Your task to perform on an android device: Go to Yahoo.com Image 0: 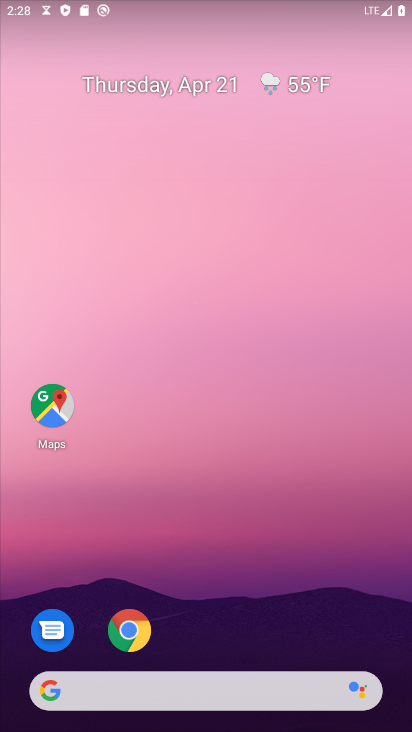
Step 0: click (127, 635)
Your task to perform on an android device: Go to Yahoo.com Image 1: 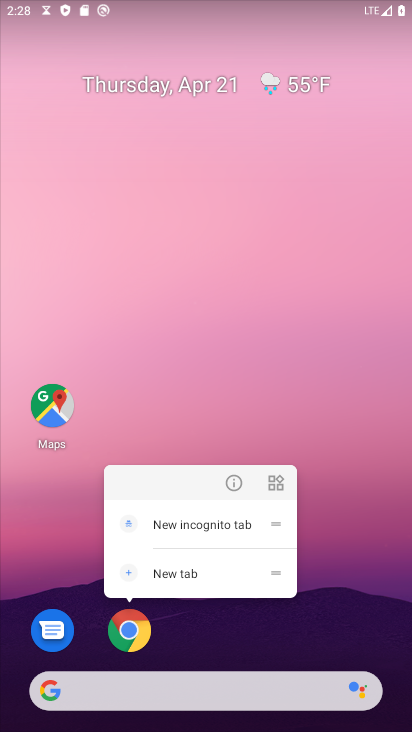
Step 1: click (128, 635)
Your task to perform on an android device: Go to Yahoo.com Image 2: 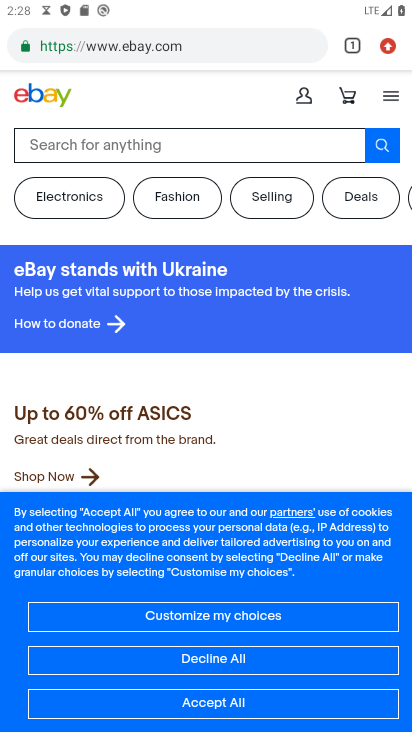
Step 2: click (121, 52)
Your task to perform on an android device: Go to Yahoo.com Image 3: 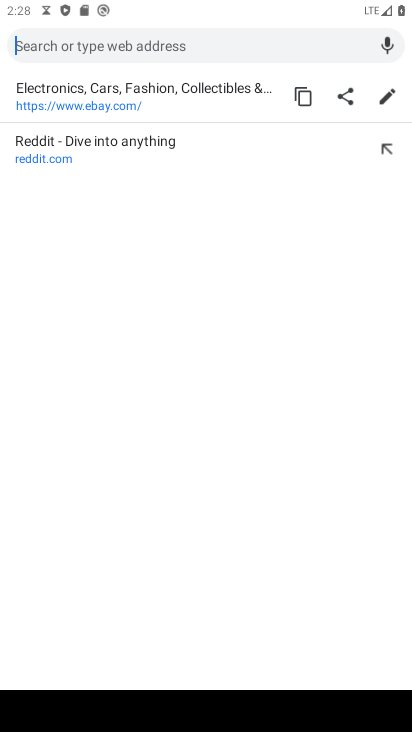
Step 3: type "yahoo.com"
Your task to perform on an android device: Go to Yahoo.com Image 4: 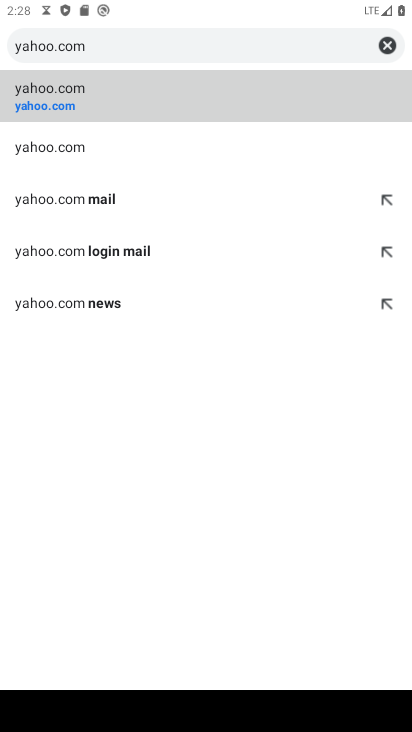
Step 4: click (46, 114)
Your task to perform on an android device: Go to Yahoo.com Image 5: 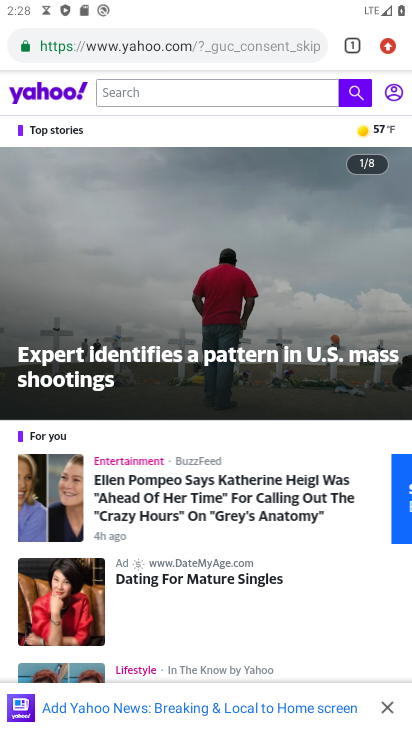
Step 5: task complete